Your task to perform on an android device: Open battery settings Image 0: 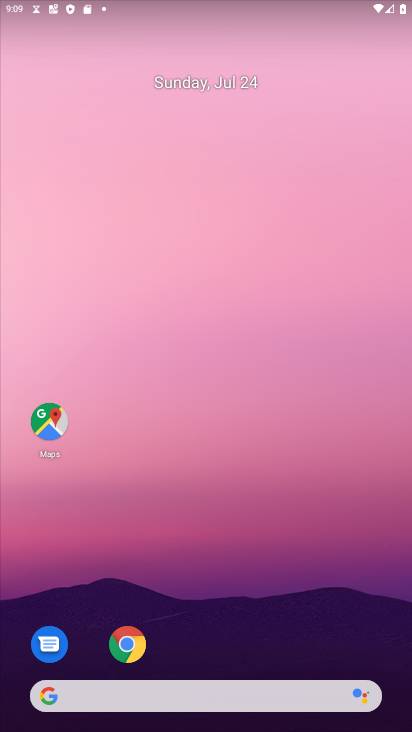
Step 0: drag from (312, 602) to (257, 86)
Your task to perform on an android device: Open battery settings Image 1: 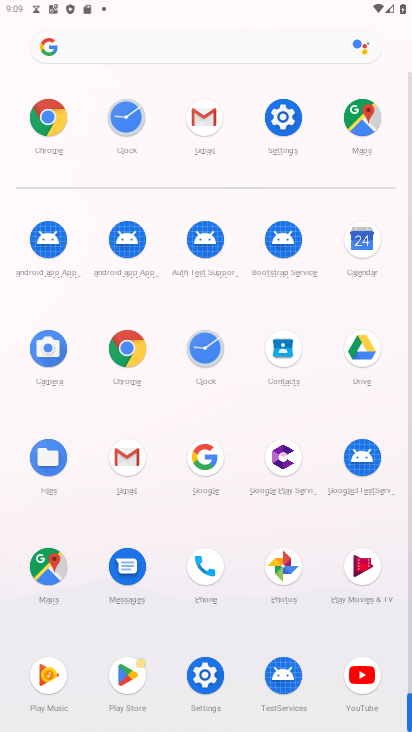
Step 1: click (212, 669)
Your task to perform on an android device: Open battery settings Image 2: 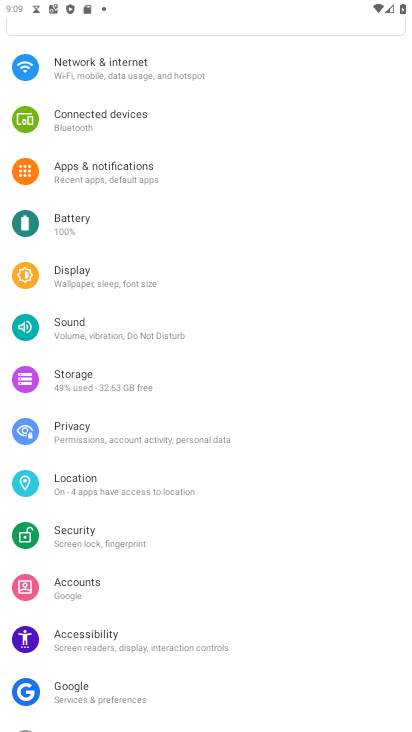
Step 2: click (65, 219)
Your task to perform on an android device: Open battery settings Image 3: 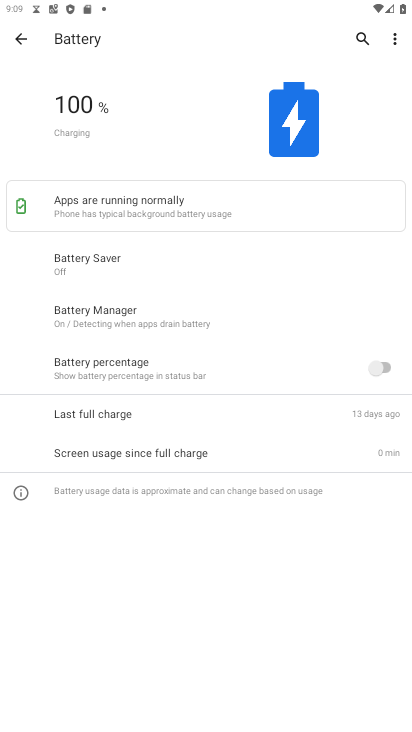
Step 3: task complete